Your task to perform on an android device: turn on bluetooth scan Image 0: 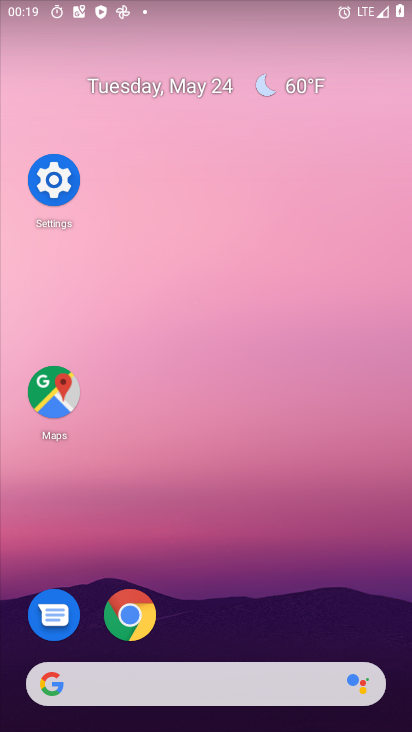
Step 0: drag from (194, 596) to (236, 24)
Your task to perform on an android device: turn on bluetooth scan Image 1: 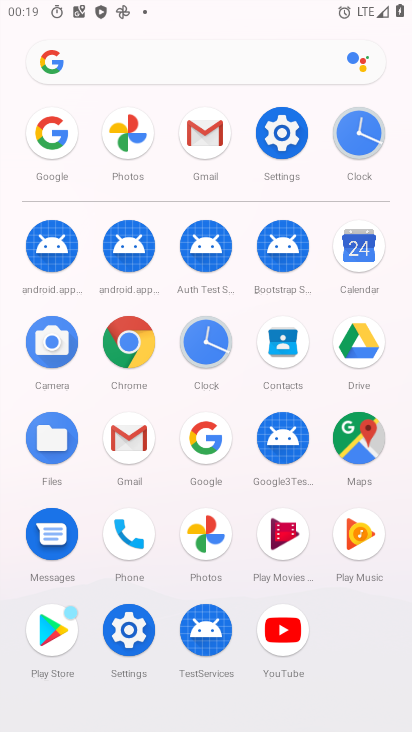
Step 1: click (271, 130)
Your task to perform on an android device: turn on bluetooth scan Image 2: 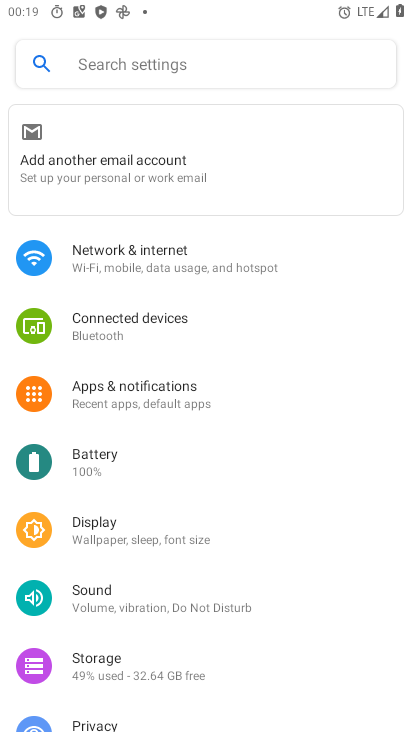
Step 2: drag from (144, 606) to (198, 152)
Your task to perform on an android device: turn on bluetooth scan Image 3: 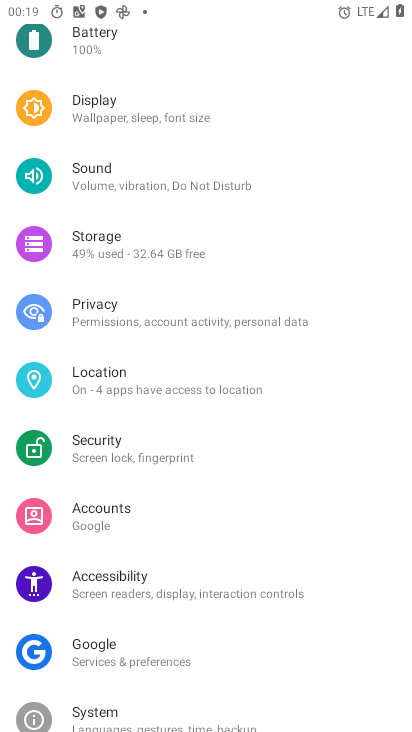
Step 3: click (104, 379)
Your task to perform on an android device: turn on bluetooth scan Image 4: 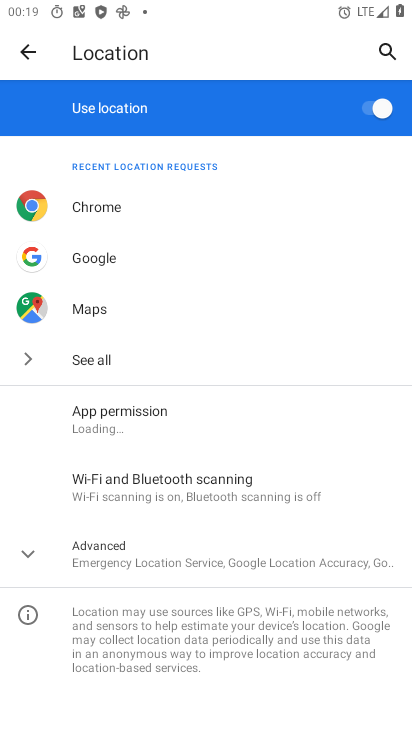
Step 4: drag from (106, 556) to (136, 306)
Your task to perform on an android device: turn on bluetooth scan Image 5: 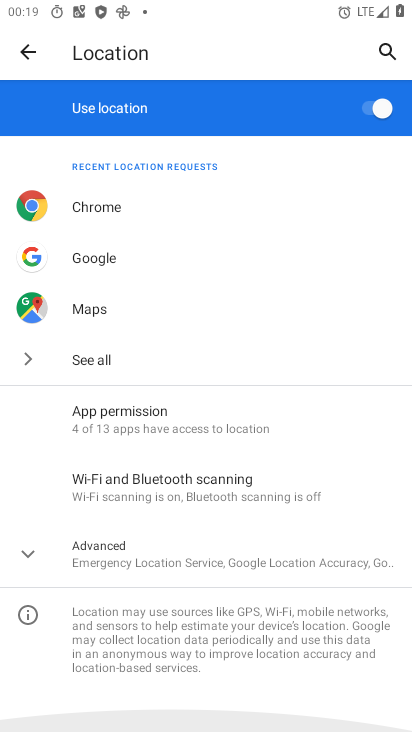
Step 5: click (206, 486)
Your task to perform on an android device: turn on bluetooth scan Image 6: 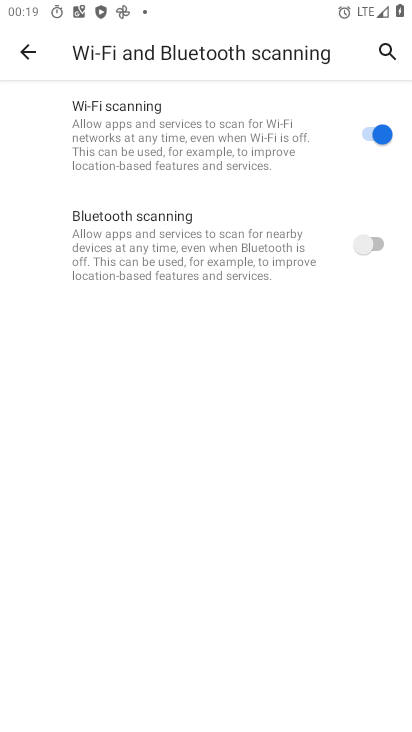
Step 6: click (369, 239)
Your task to perform on an android device: turn on bluetooth scan Image 7: 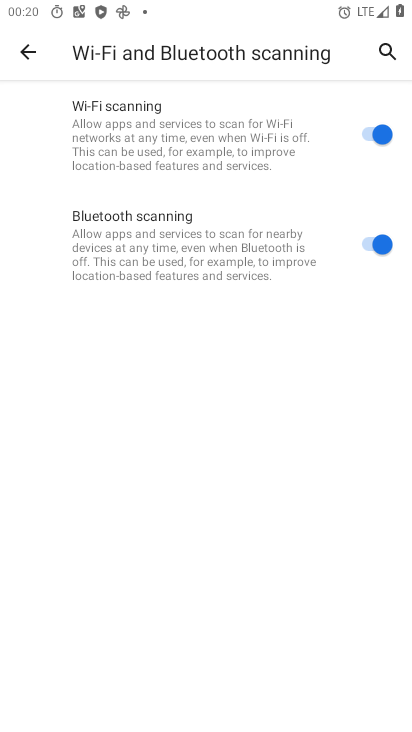
Step 7: task complete